Your task to perform on an android device: Toggle the flashlight Image 0: 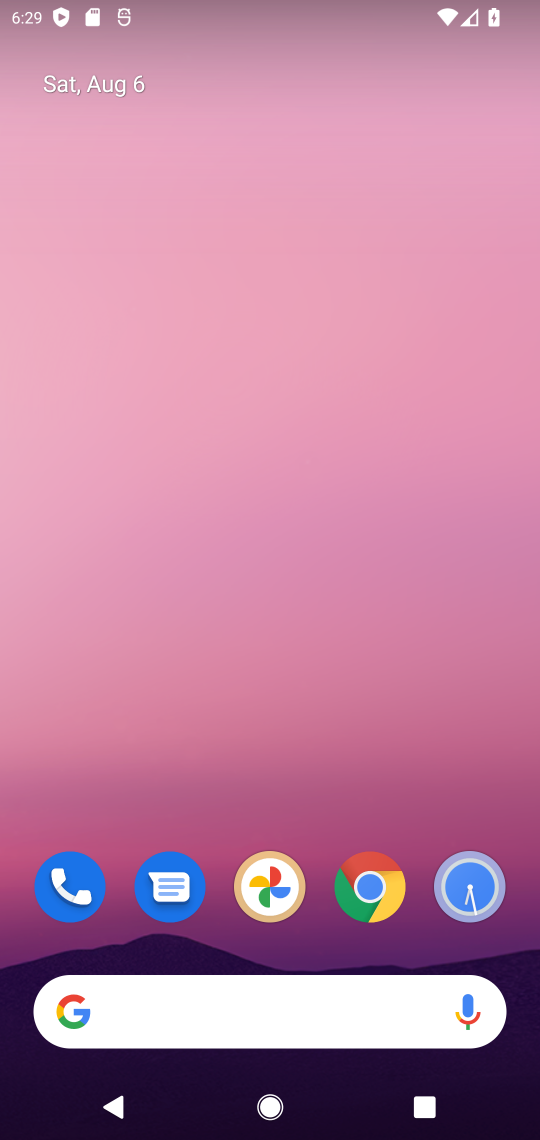
Step 0: drag from (135, 426) to (203, 193)
Your task to perform on an android device: Toggle the flashlight Image 1: 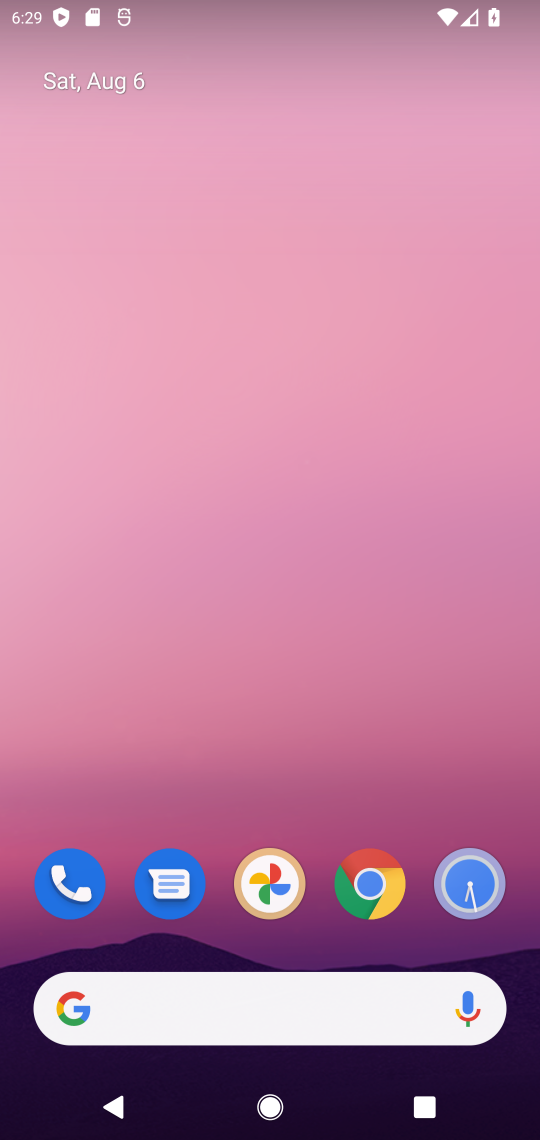
Step 1: click (225, 340)
Your task to perform on an android device: Toggle the flashlight Image 2: 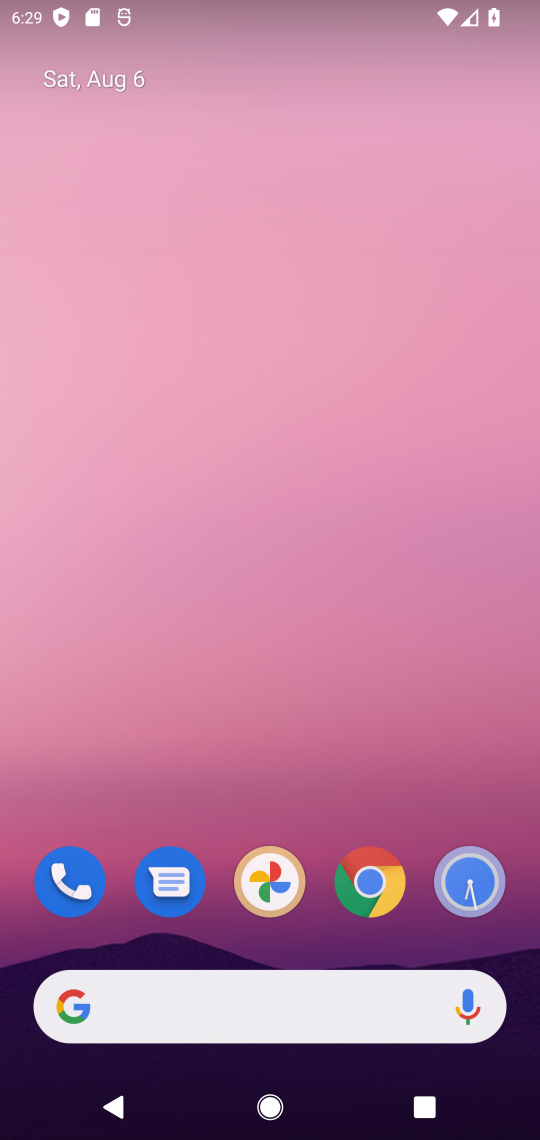
Step 2: drag from (274, 540) to (245, 377)
Your task to perform on an android device: Toggle the flashlight Image 3: 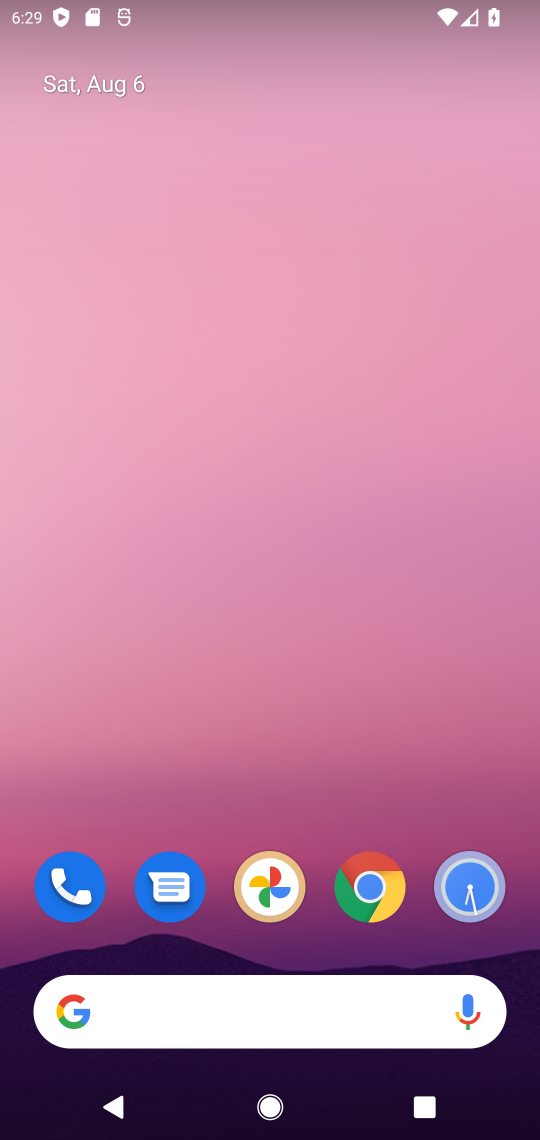
Step 3: drag from (292, 416) to (187, 290)
Your task to perform on an android device: Toggle the flashlight Image 4: 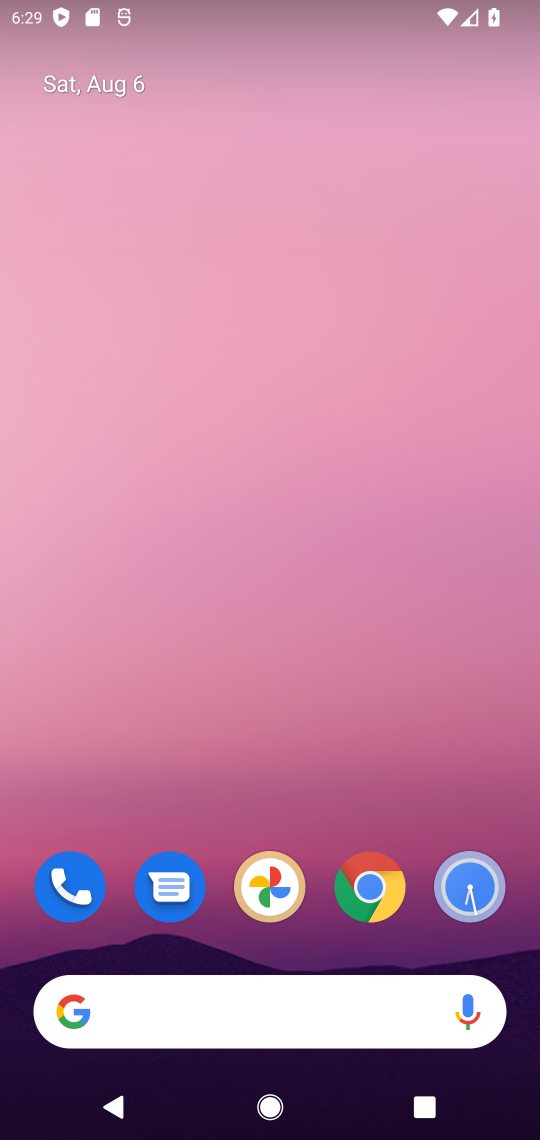
Step 4: drag from (293, 317) to (307, 368)
Your task to perform on an android device: Toggle the flashlight Image 5: 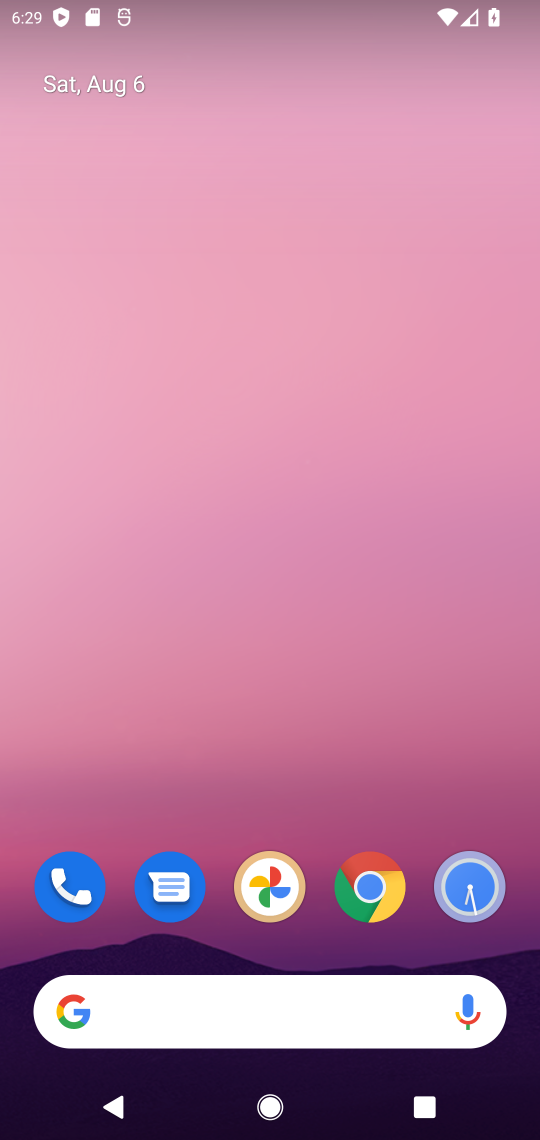
Step 5: drag from (306, 843) to (322, 481)
Your task to perform on an android device: Toggle the flashlight Image 6: 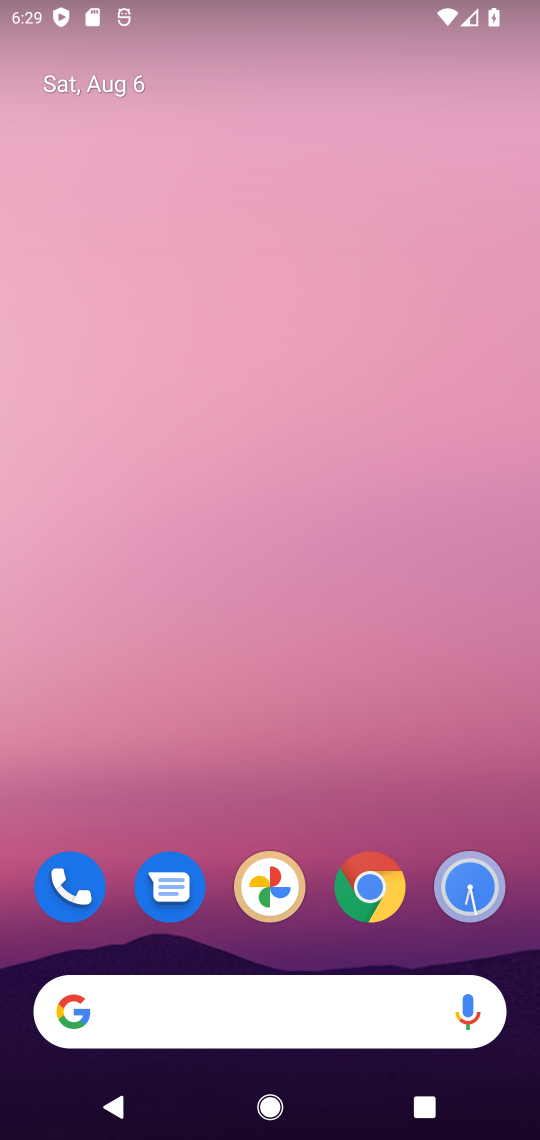
Step 6: drag from (311, 684) to (200, 316)
Your task to perform on an android device: Toggle the flashlight Image 7: 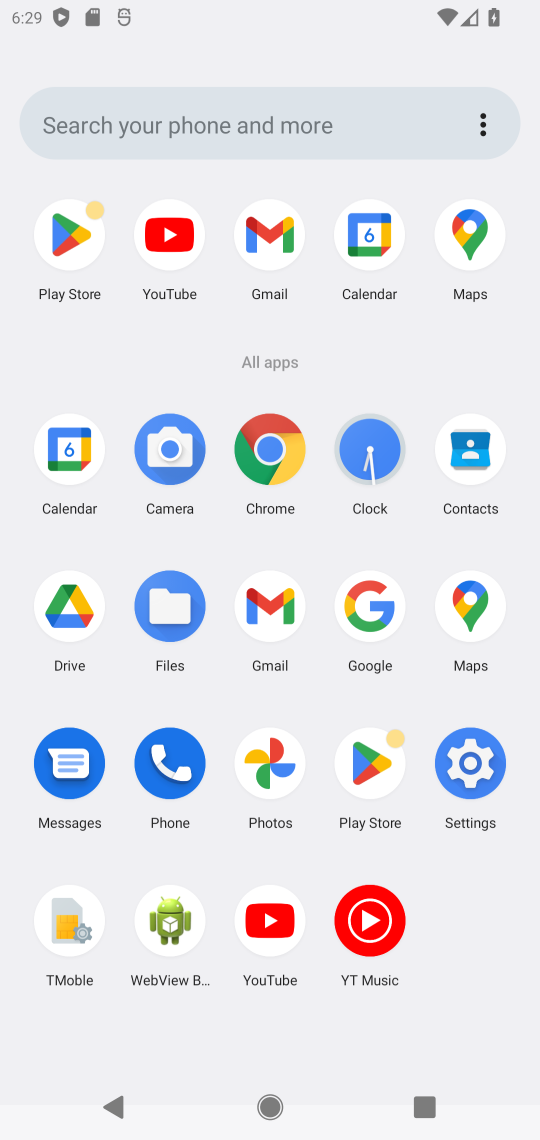
Step 7: click (151, 589)
Your task to perform on an android device: Toggle the flashlight Image 8: 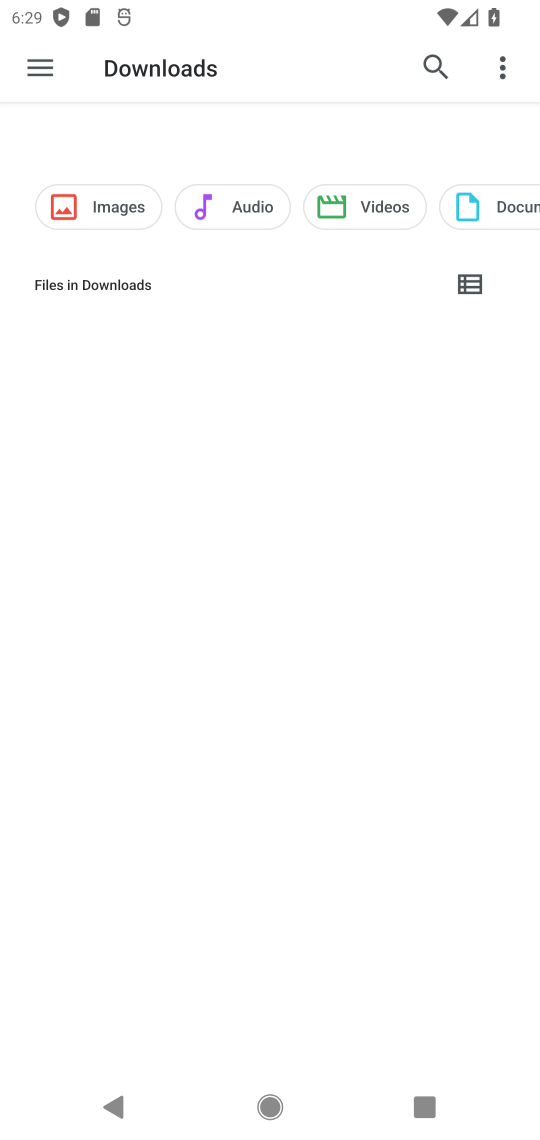
Step 8: click (182, 395)
Your task to perform on an android device: Toggle the flashlight Image 9: 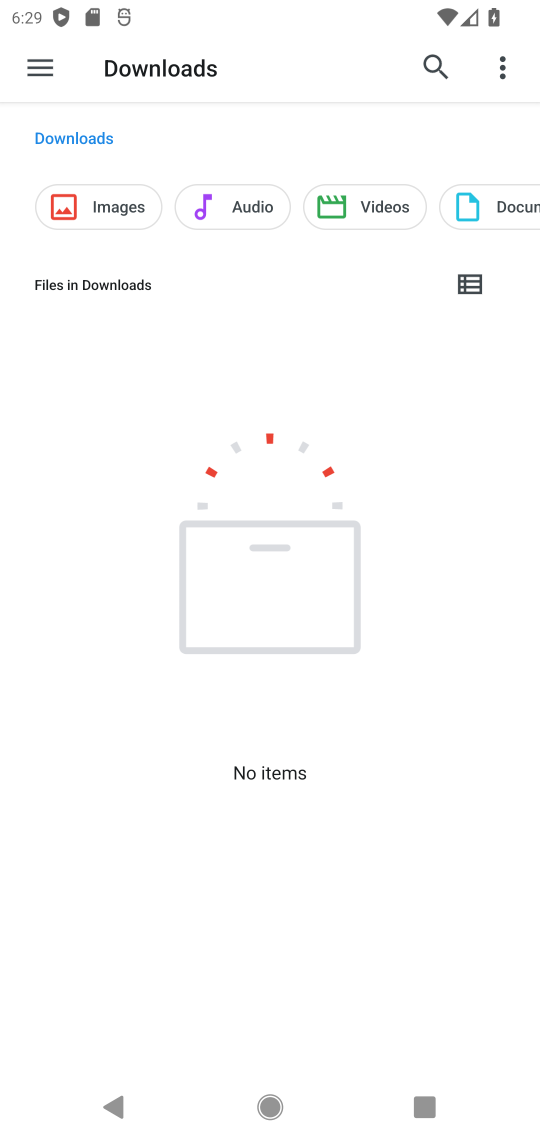
Step 9: drag from (284, 648) to (278, 587)
Your task to perform on an android device: Toggle the flashlight Image 10: 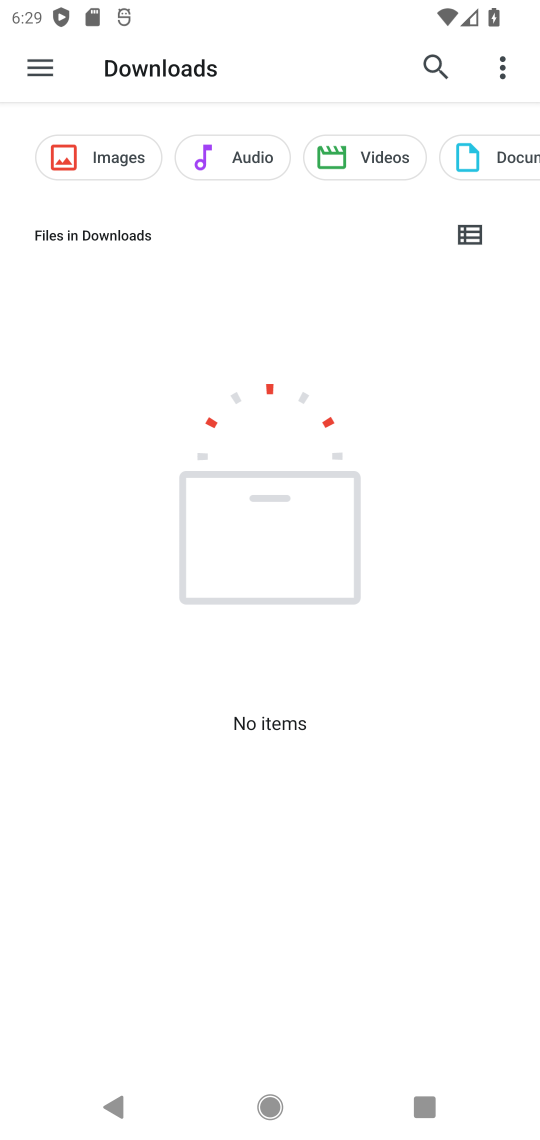
Step 10: click (39, 63)
Your task to perform on an android device: Toggle the flashlight Image 11: 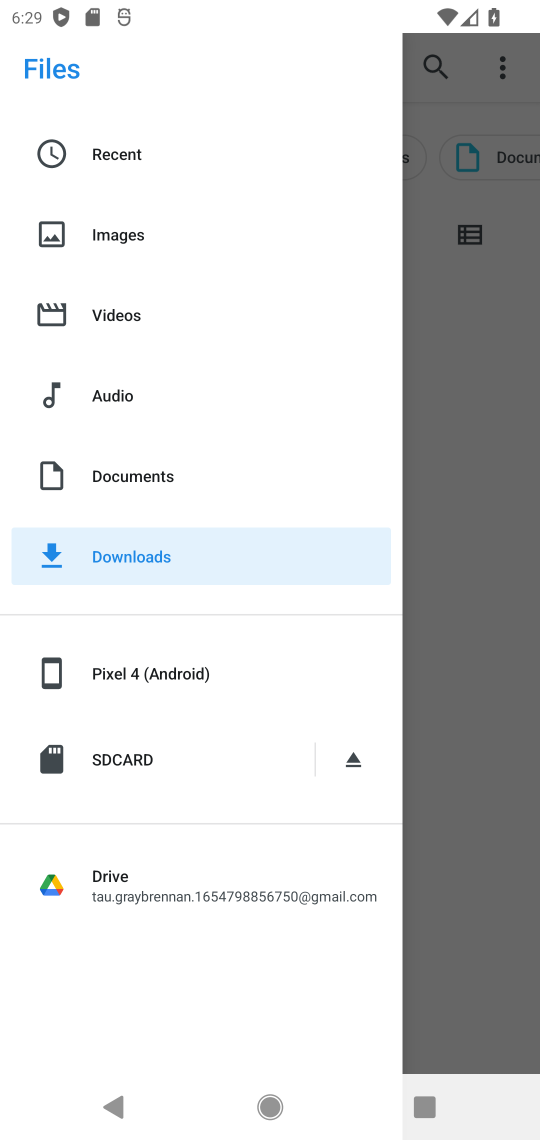
Step 11: click (402, 600)
Your task to perform on an android device: Toggle the flashlight Image 12: 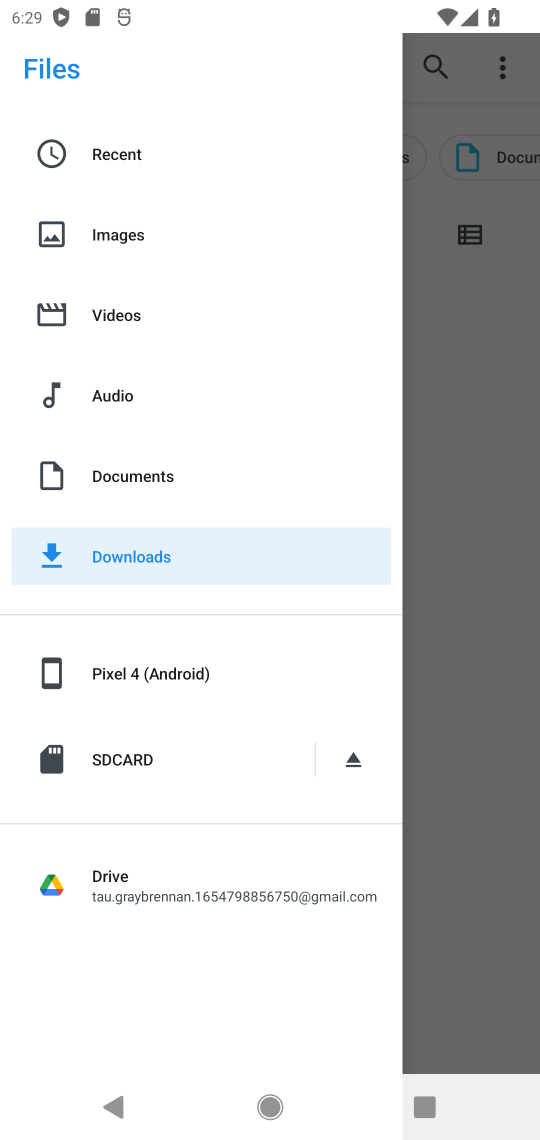
Step 12: drag from (467, 600) to (473, 160)
Your task to perform on an android device: Toggle the flashlight Image 13: 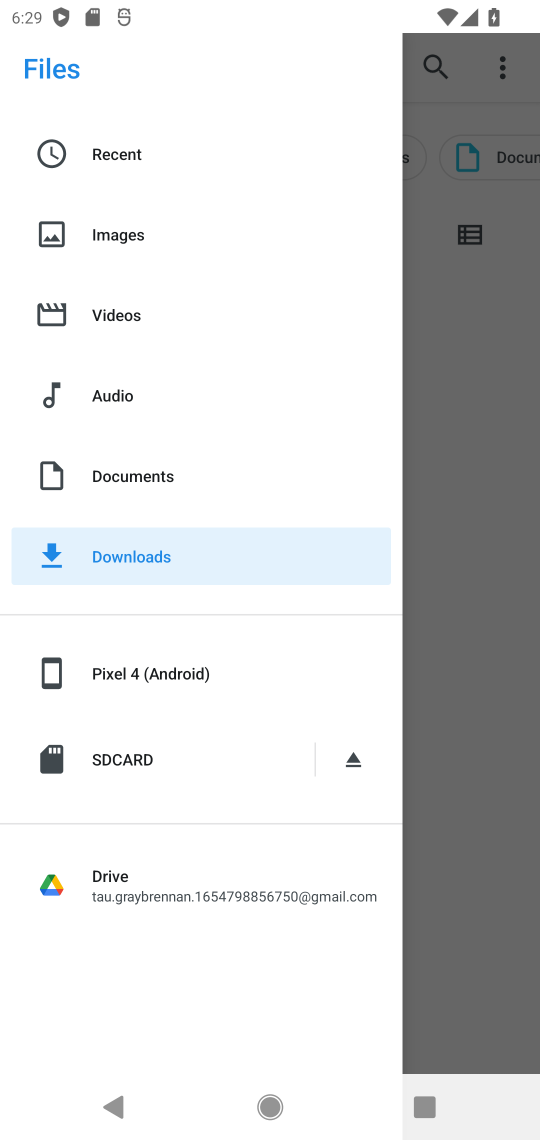
Step 13: click (482, 610)
Your task to perform on an android device: Toggle the flashlight Image 14: 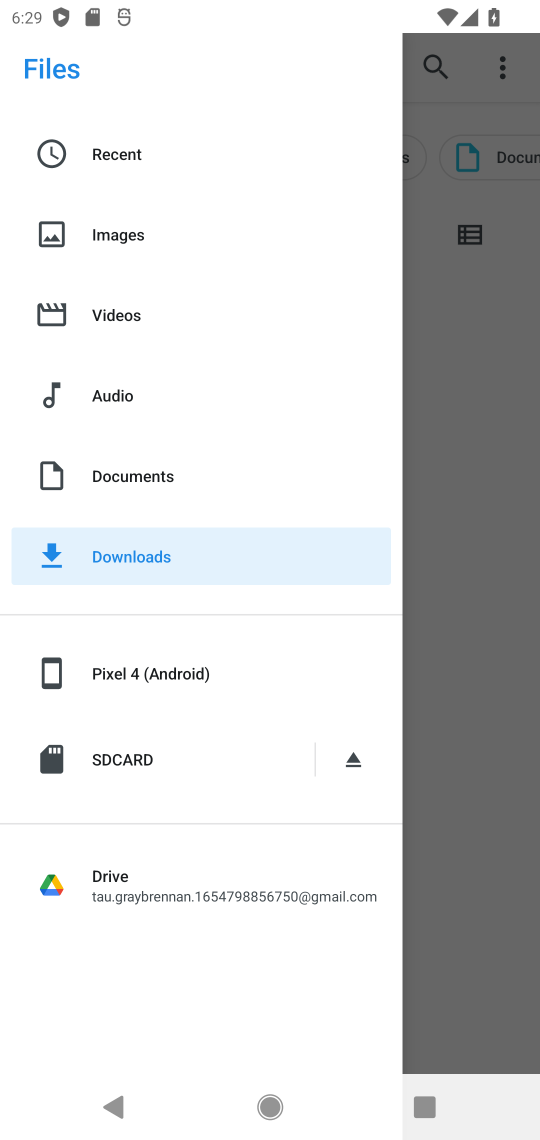
Step 14: click (447, 590)
Your task to perform on an android device: Toggle the flashlight Image 15: 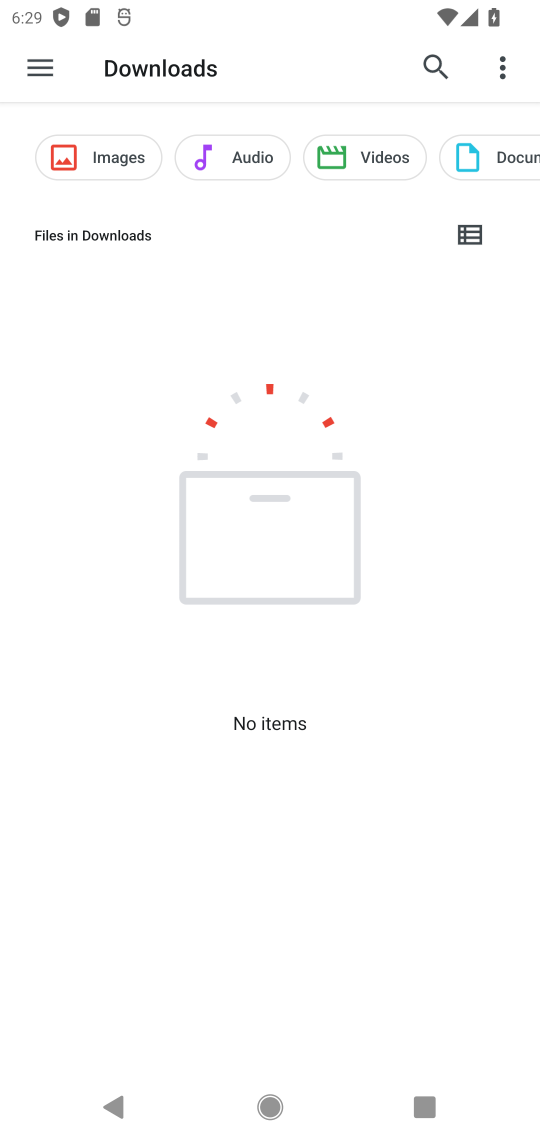
Step 15: drag from (352, 827) to (228, 319)
Your task to perform on an android device: Toggle the flashlight Image 16: 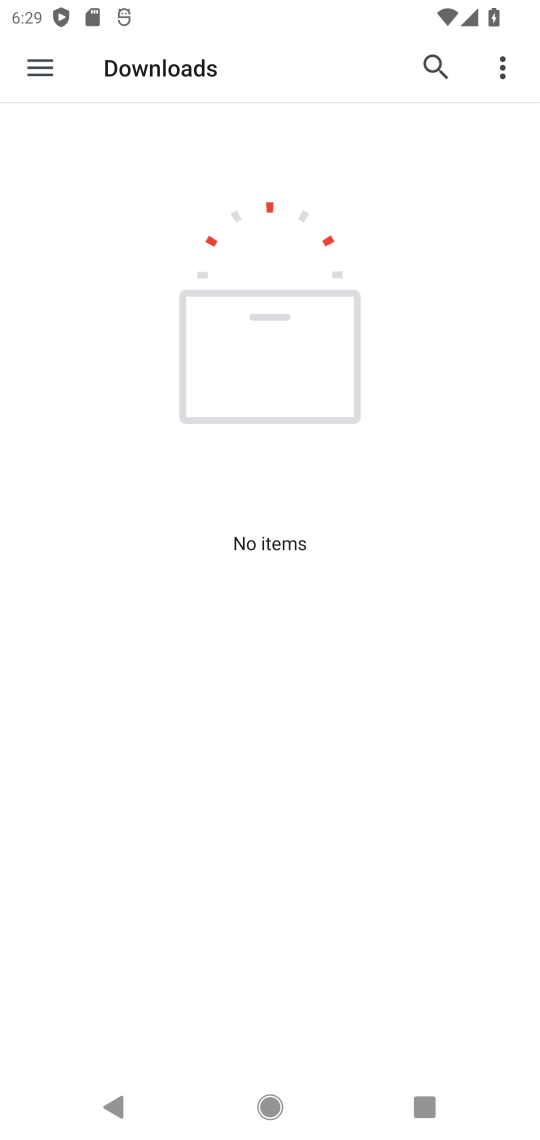
Step 16: drag from (101, 496) to (3, 175)
Your task to perform on an android device: Toggle the flashlight Image 17: 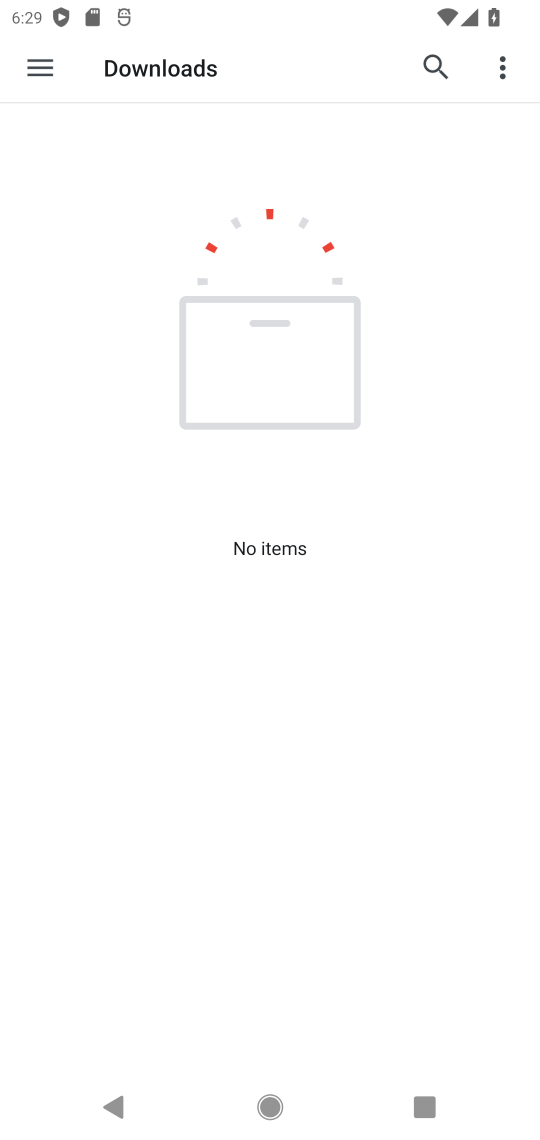
Step 17: drag from (286, 568) to (205, 257)
Your task to perform on an android device: Toggle the flashlight Image 18: 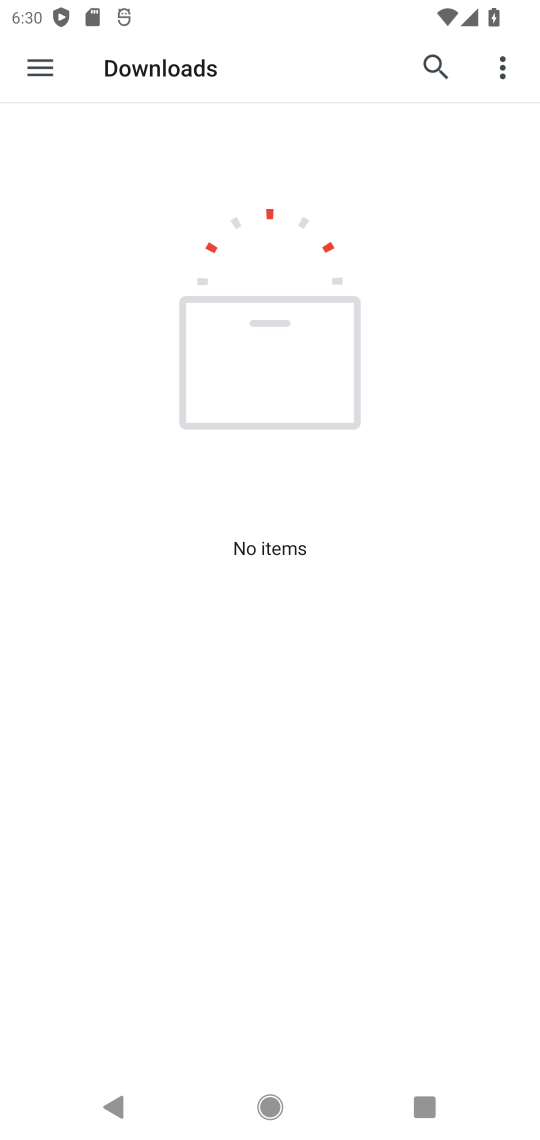
Step 18: drag from (239, 115) to (229, 323)
Your task to perform on an android device: Toggle the flashlight Image 19: 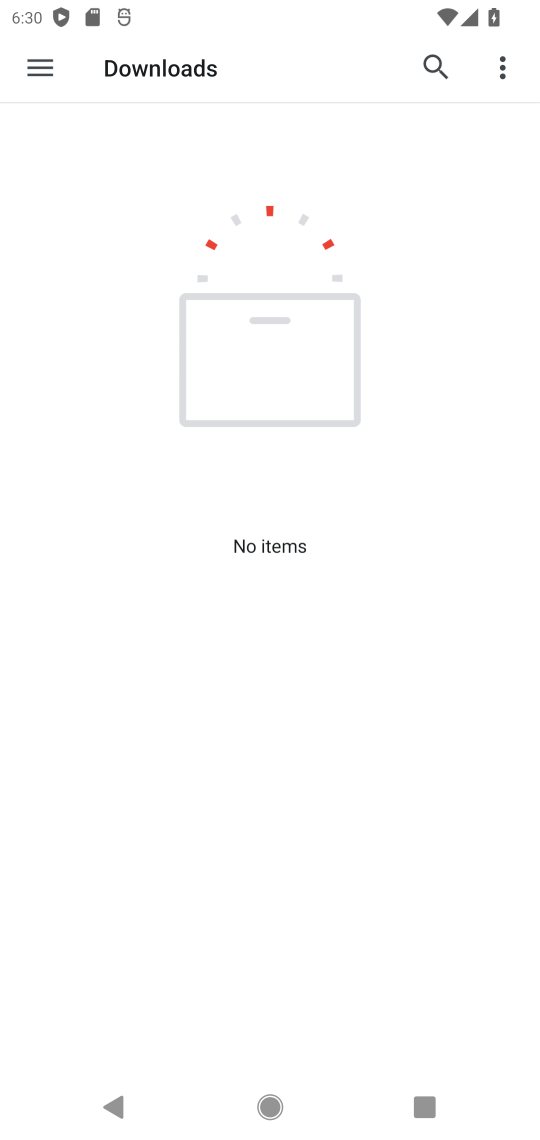
Step 19: drag from (264, 681) to (160, 366)
Your task to perform on an android device: Toggle the flashlight Image 20: 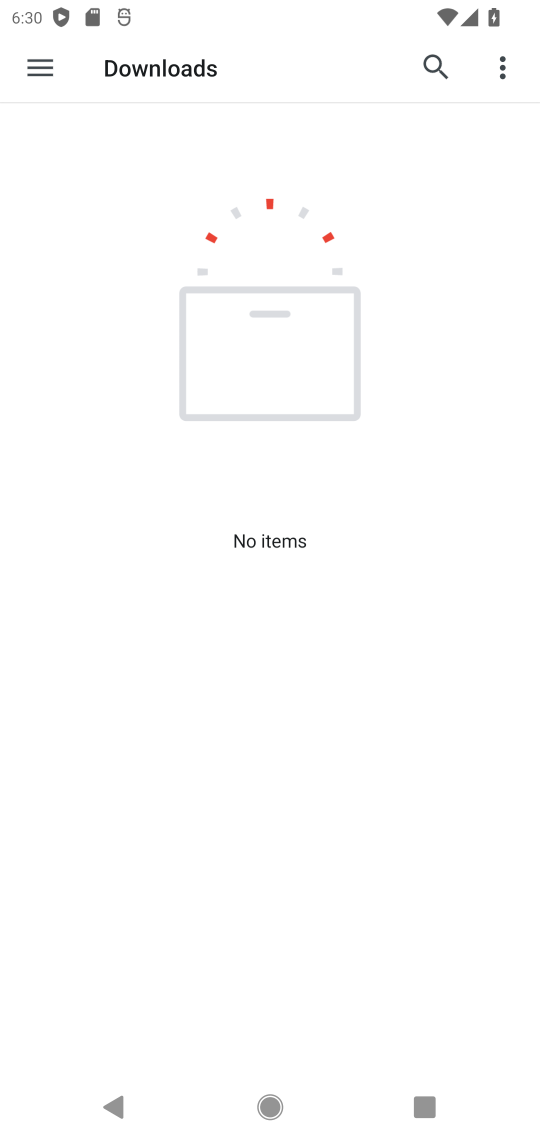
Step 20: drag from (168, 424) to (149, 338)
Your task to perform on an android device: Toggle the flashlight Image 21: 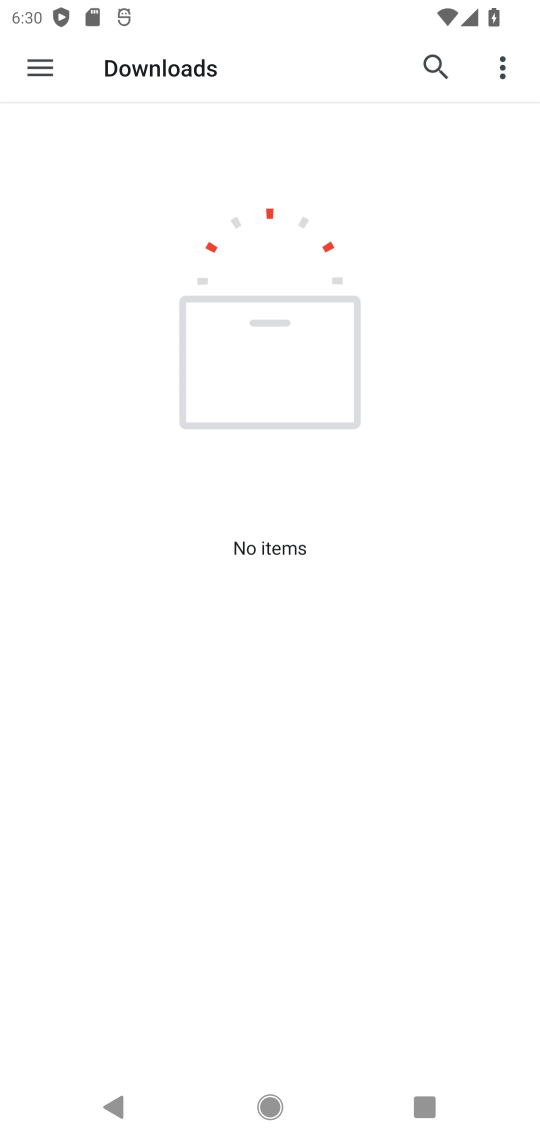
Step 21: click (191, 563)
Your task to perform on an android device: Toggle the flashlight Image 22: 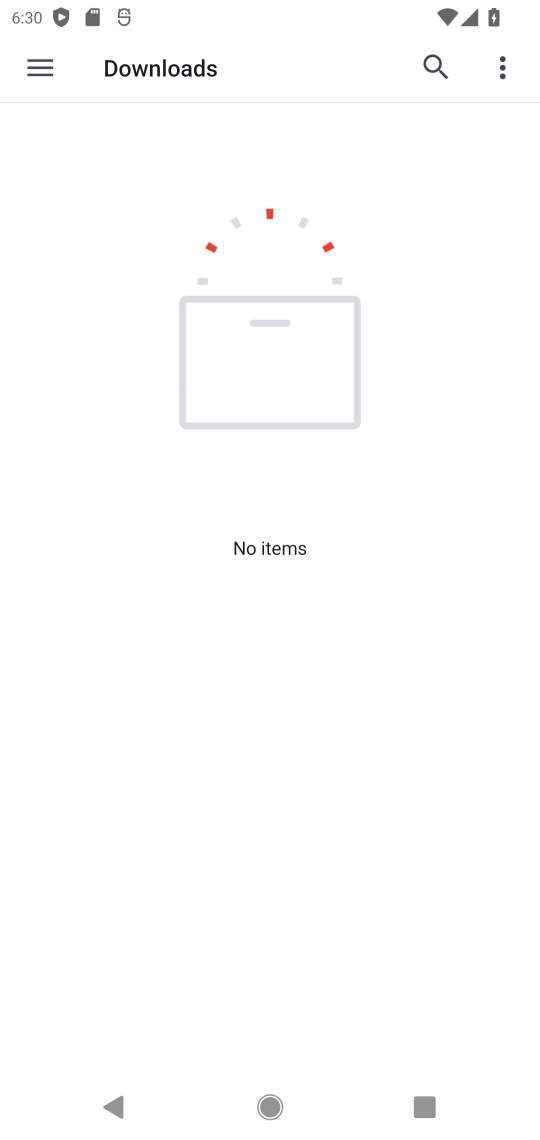
Step 22: click (89, 533)
Your task to perform on an android device: Toggle the flashlight Image 23: 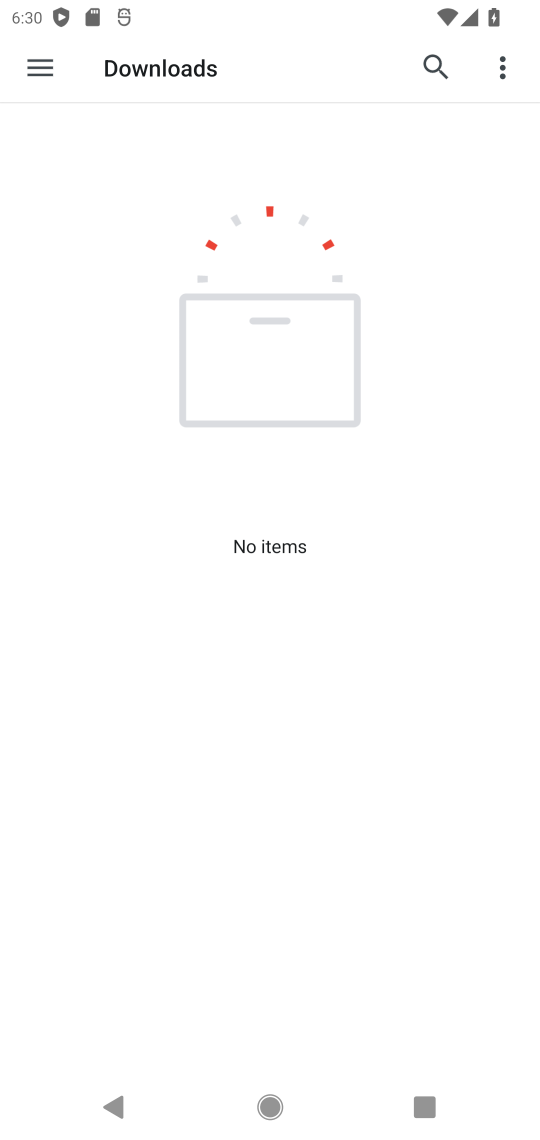
Step 23: drag from (257, 727) to (203, 344)
Your task to perform on an android device: Toggle the flashlight Image 24: 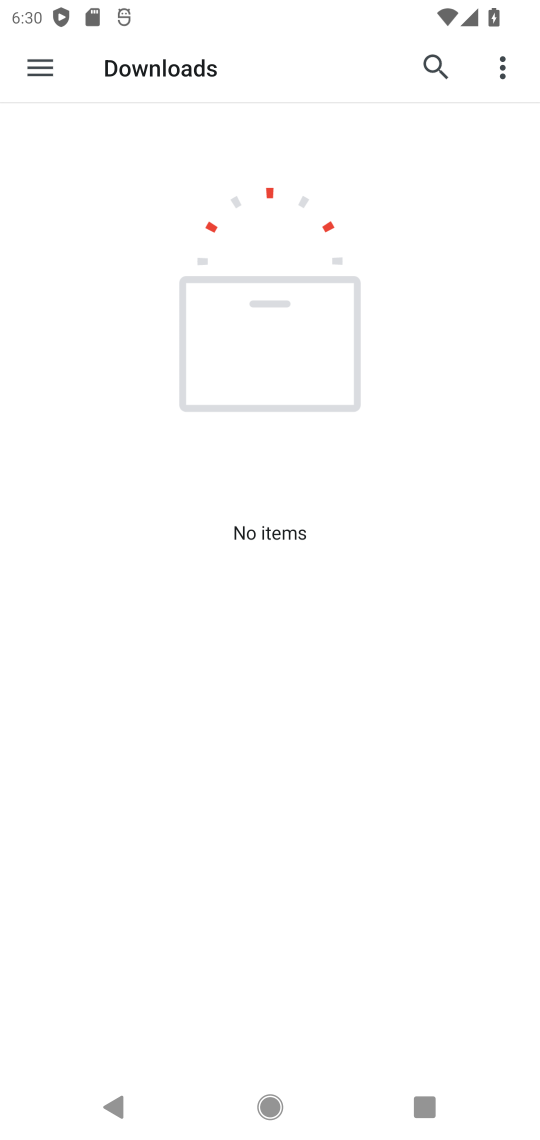
Step 24: drag from (252, 757) to (154, 267)
Your task to perform on an android device: Toggle the flashlight Image 25: 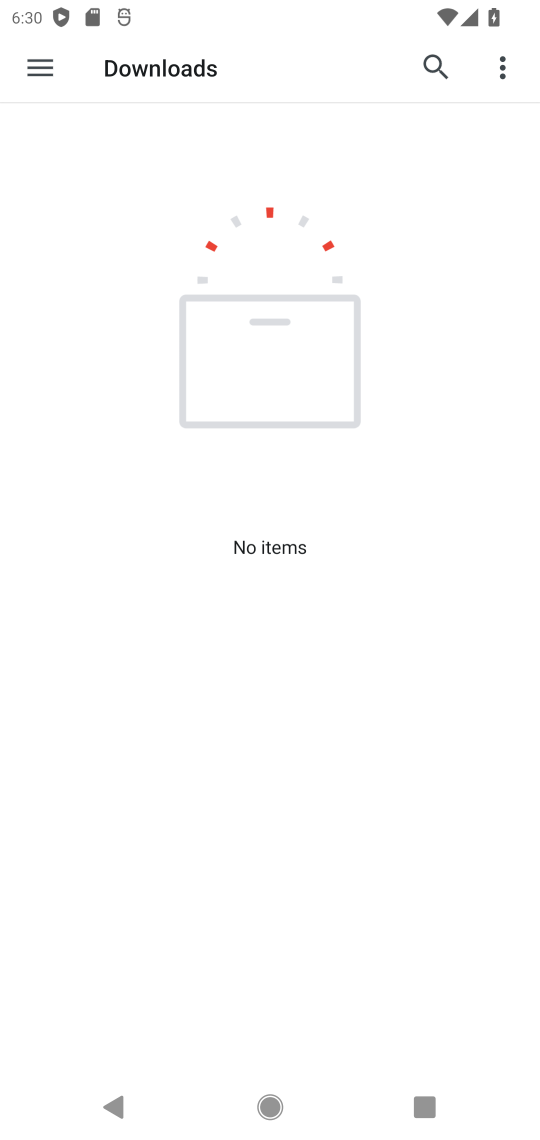
Step 25: click (197, 494)
Your task to perform on an android device: Toggle the flashlight Image 26: 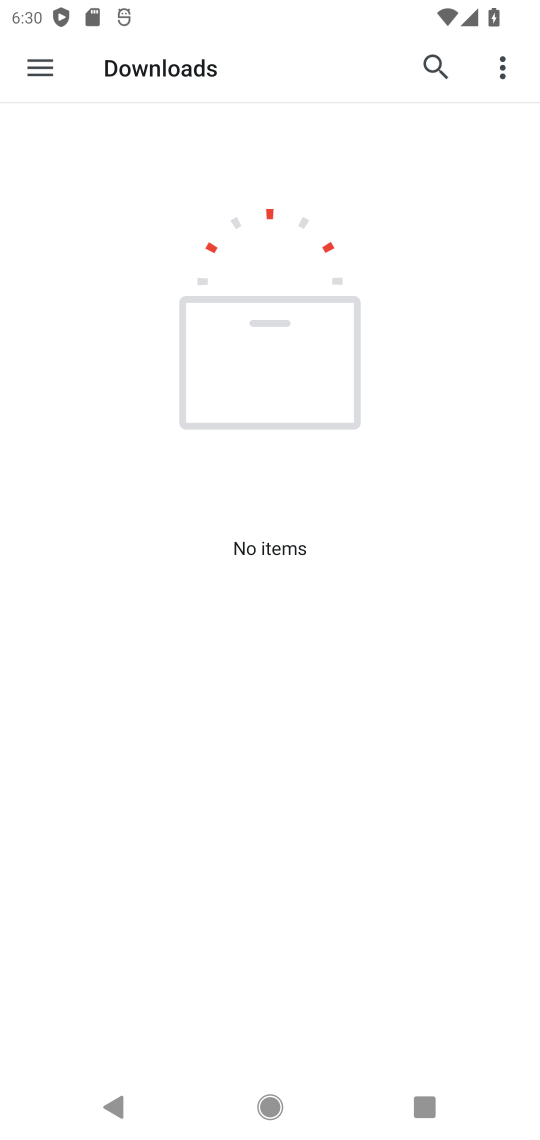
Step 26: task complete